Your task to perform on an android device: delete a single message in the gmail app Image 0: 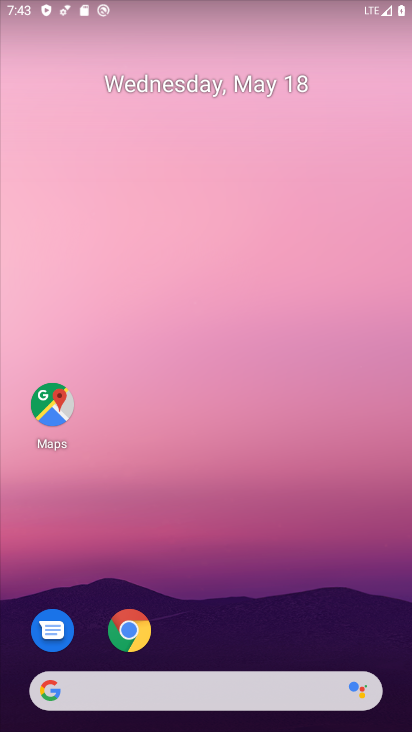
Step 0: drag from (345, 611) to (358, 175)
Your task to perform on an android device: delete a single message in the gmail app Image 1: 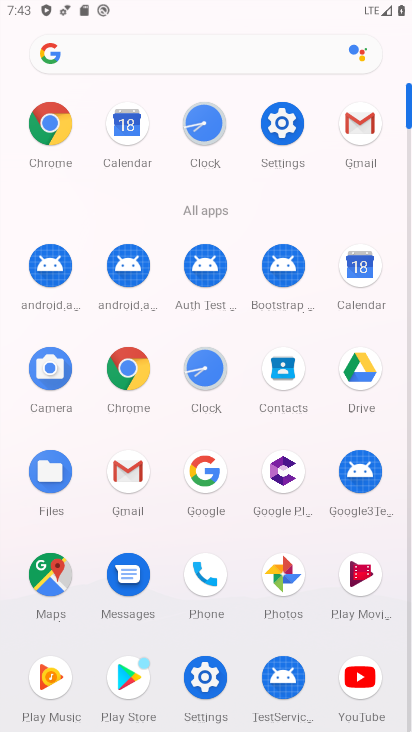
Step 1: click (376, 136)
Your task to perform on an android device: delete a single message in the gmail app Image 2: 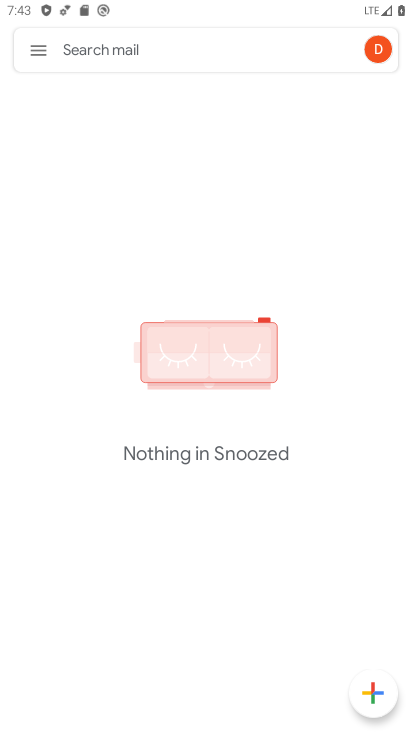
Step 2: click (35, 60)
Your task to perform on an android device: delete a single message in the gmail app Image 3: 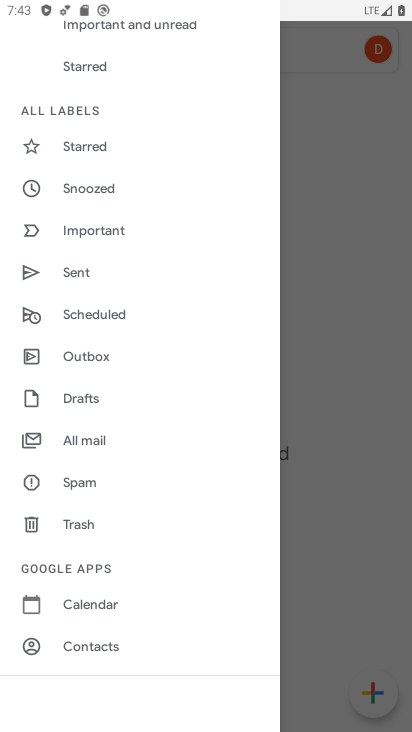
Step 3: drag from (114, 165) to (180, 470)
Your task to perform on an android device: delete a single message in the gmail app Image 4: 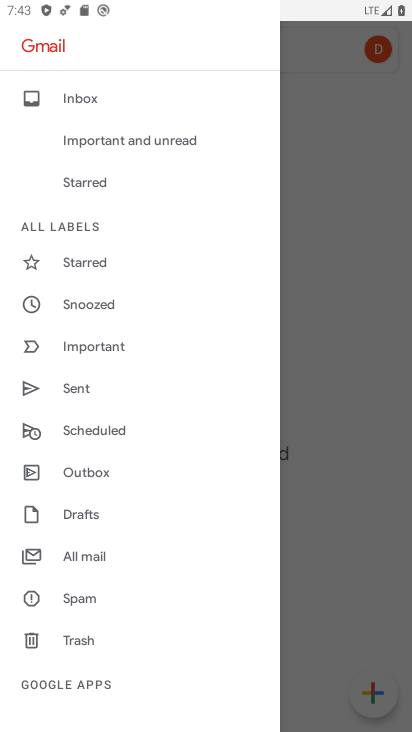
Step 4: click (47, 95)
Your task to perform on an android device: delete a single message in the gmail app Image 5: 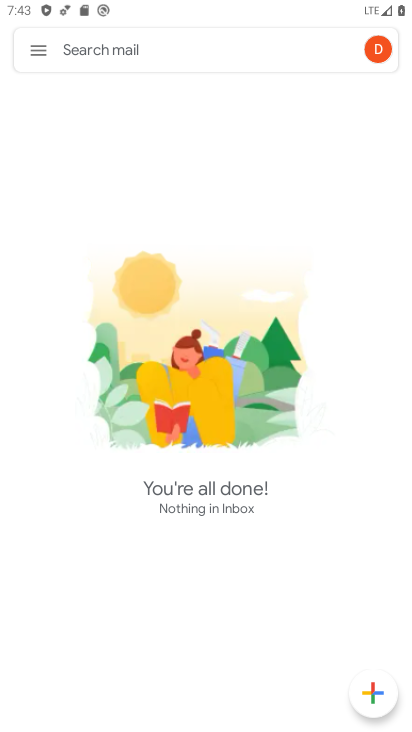
Step 5: task complete